Your task to perform on an android device: Go to Reddit.com Image 0: 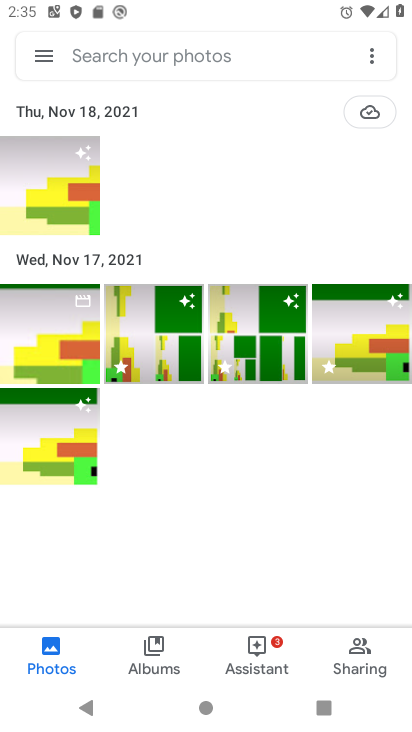
Step 0: press home button
Your task to perform on an android device: Go to Reddit.com Image 1: 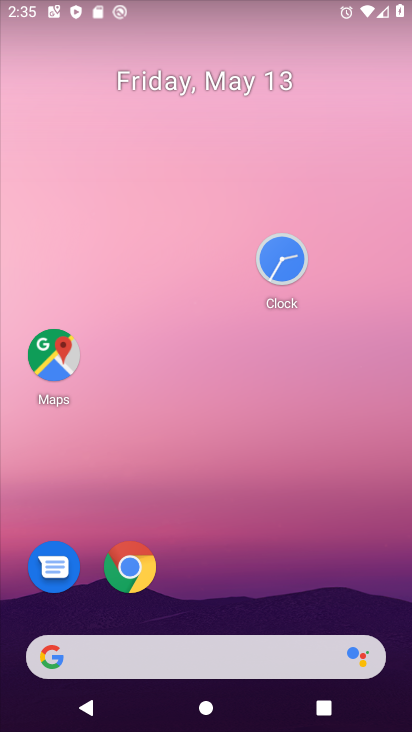
Step 1: click (144, 548)
Your task to perform on an android device: Go to Reddit.com Image 2: 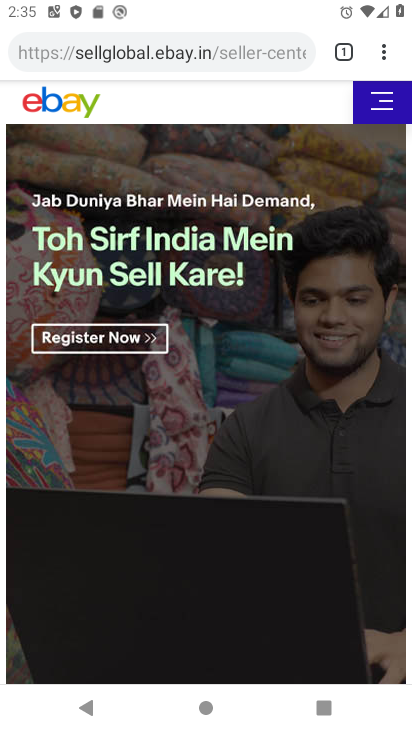
Step 2: click (170, 54)
Your task to perform on an android device: Go to Reddit.com Image 3: 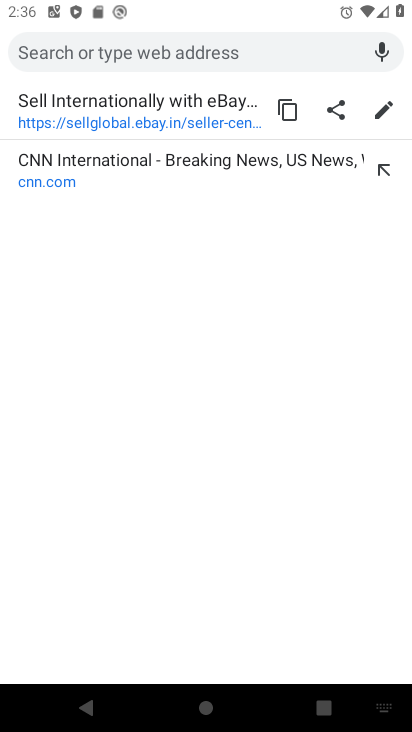
Step 3: click (170, 54)
Your task to perform on an android device: Go to Reddit.com Image 4: 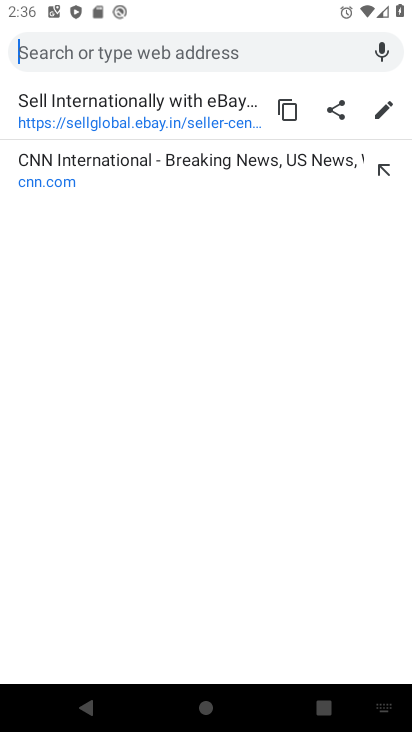
Step 4: type "reddit"
Your task to perform on an android device: Go to Reddit.com Image 5: 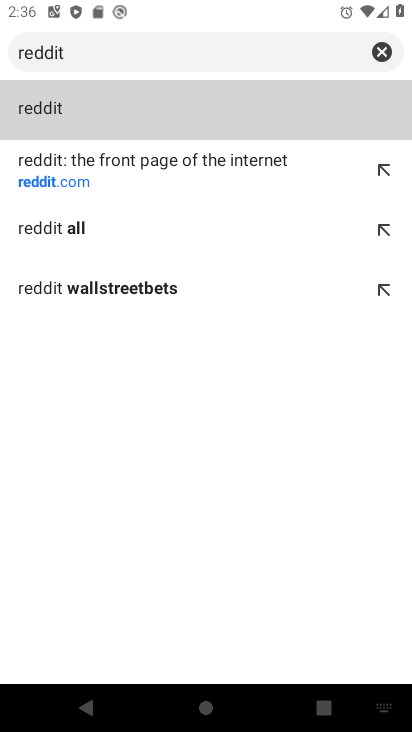
Step 5: click (205, 178)
Your task to perform on an android device: Go to Reddit.com Image 6: 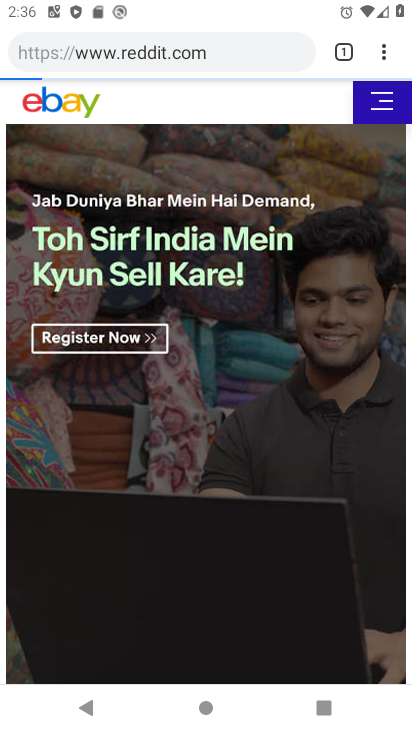
Step 6: task complete